Your task to perform on an android device: set the timer Image 0: 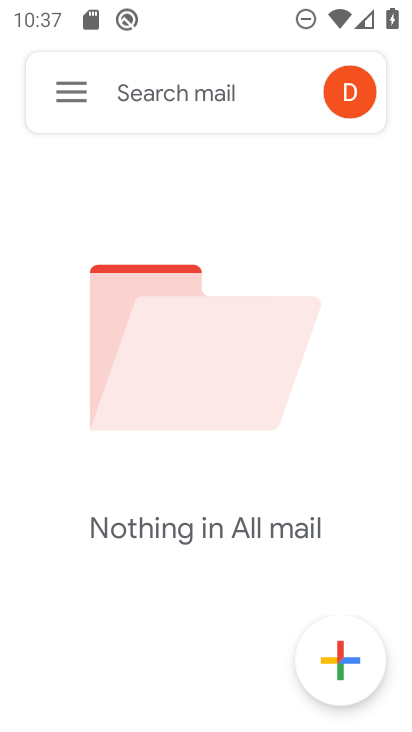
Step 0: press home button
Your task to perform on an android device: set the timer Image 1: 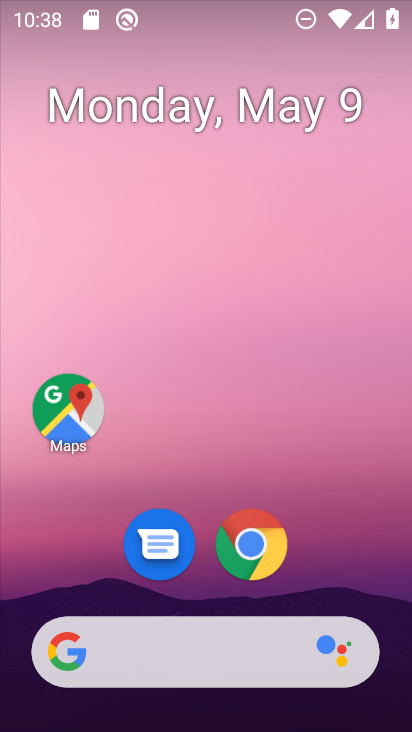
Step 1: drag from (190, 60) to (178, 4)
Your task to perform on an android device: set the timer Image 2: 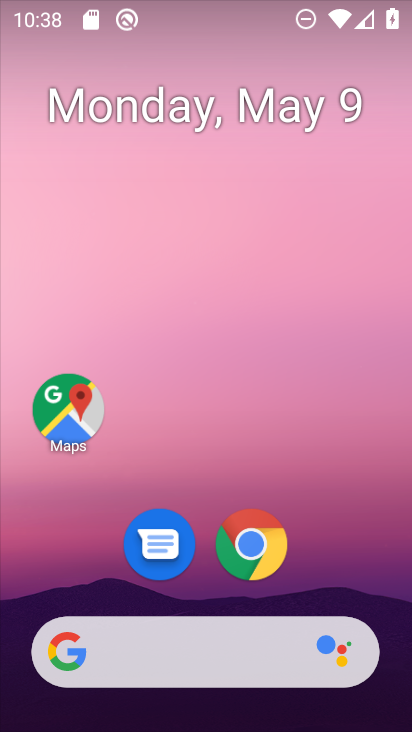
Step 2: drag from (334, 569) to (233, 31)
Your task to perform on an android device: set the timer Image 3: 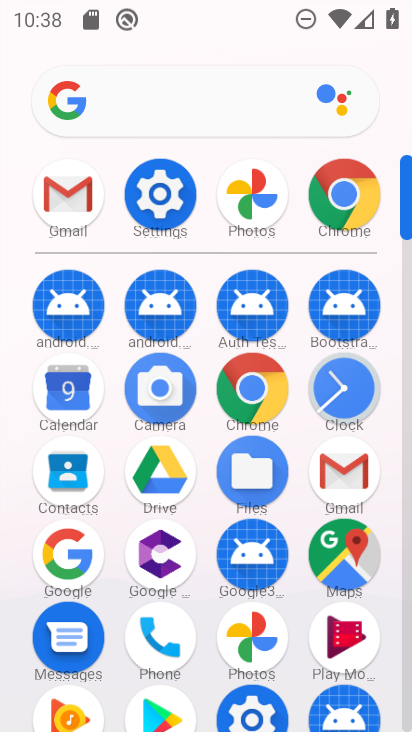
Step 3: click (344, 387)
Your task to perform on an android device: set the timer Image 4: 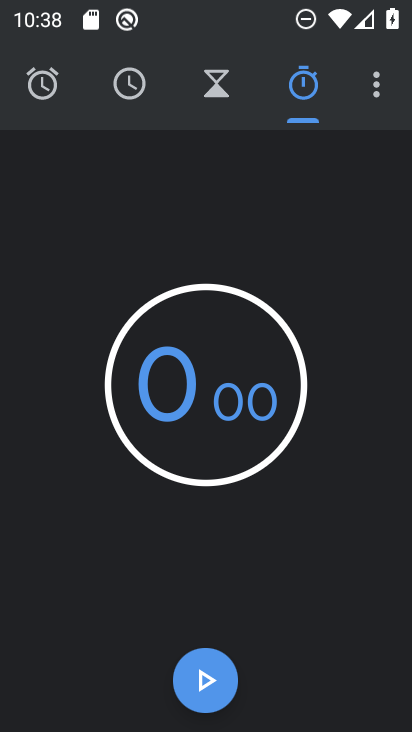
Step 4: click (219, 76)
Your task to perform on an android device: set the timer Image 5: 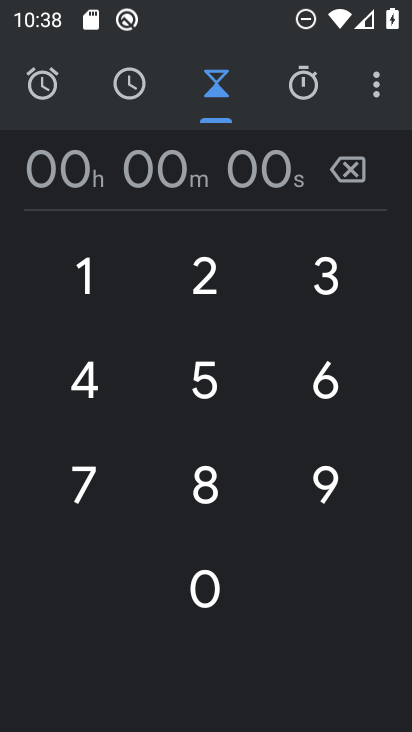
Step 5: click (94, 268)
Your task to perform on an android device: set the timer Image 6: 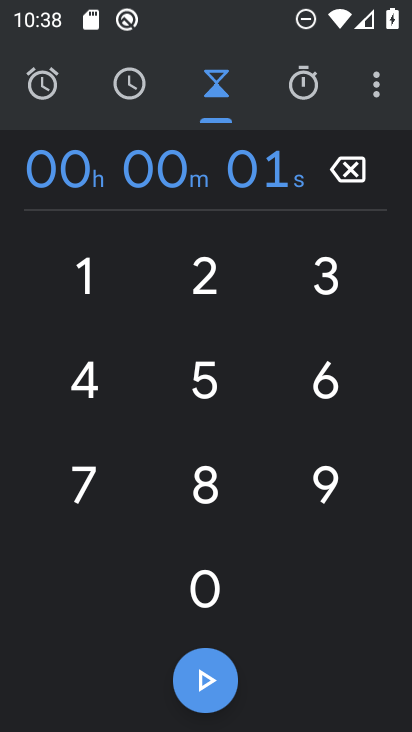
Step 6: click (94, 268)
Your task to perform on an android device: set the timer Image 7: 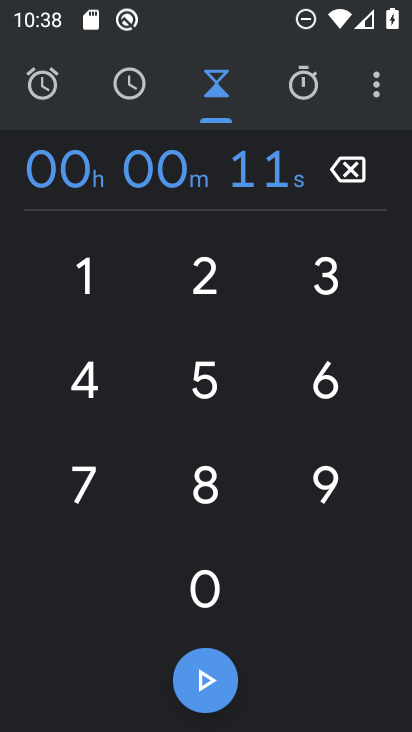
Step 7: click (94, 268)
Your task to perform on an android device: set the timer Image 8: 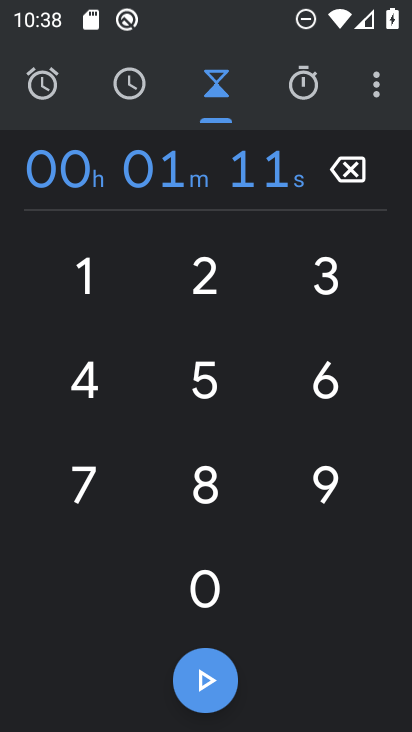
Step 8: click (94, 268)
Your task to perform on an android device: set the timer Image 9: 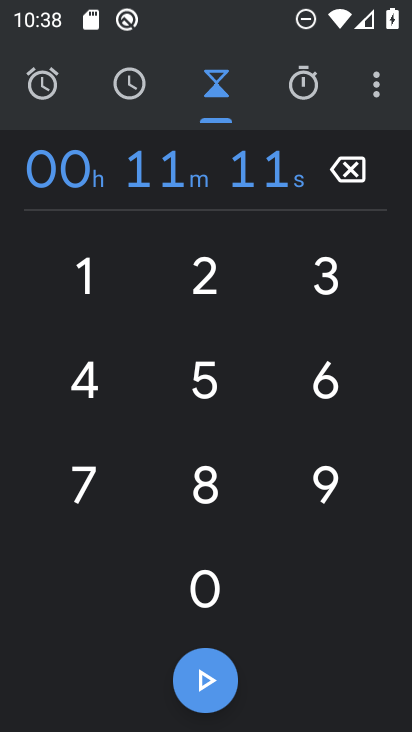
Step 9: click (94, 268)
Your task to perform on an android device: set the timer Image 10: 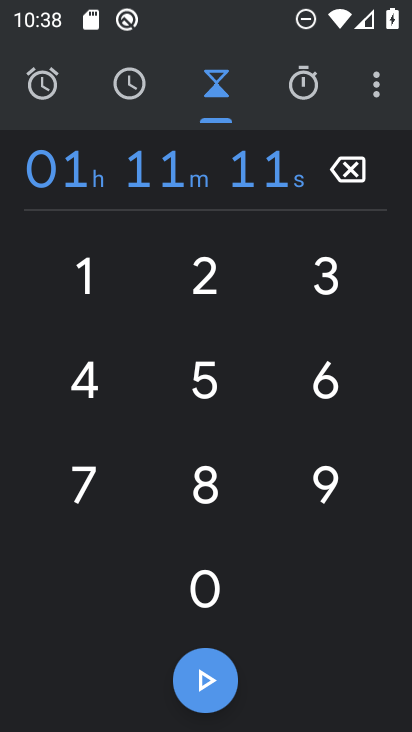
Step 10: task complete